Your task to perform on an android device: When is my next appointment? Image 0: 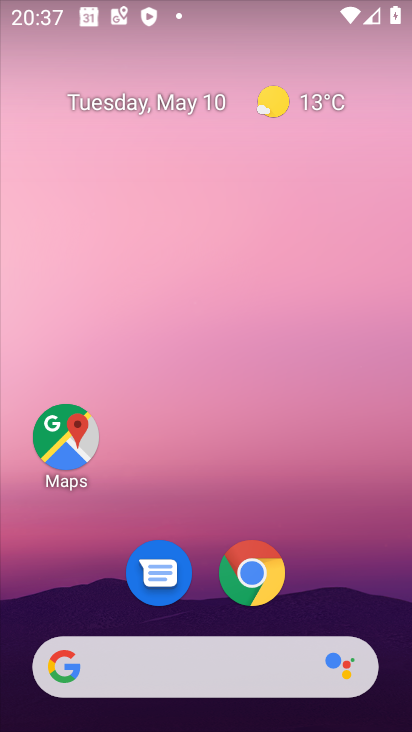
Step 0: drag from (322, 603) to (389, 28)
Your task to perform on an android device: When is my next appointment? Image 1: 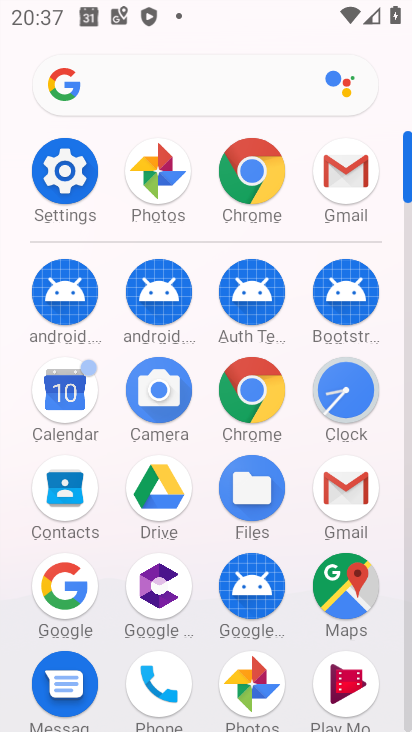
Step 1: click (67, 392)
Your task to perform on an android device: When is my next appointment? Image 2: 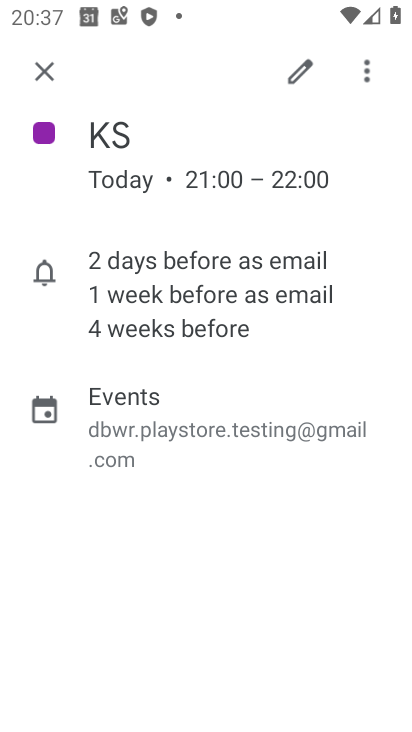
Step 2: click (44, 76)
Your task to perform on an android device: When is my next appointment? Image 3: 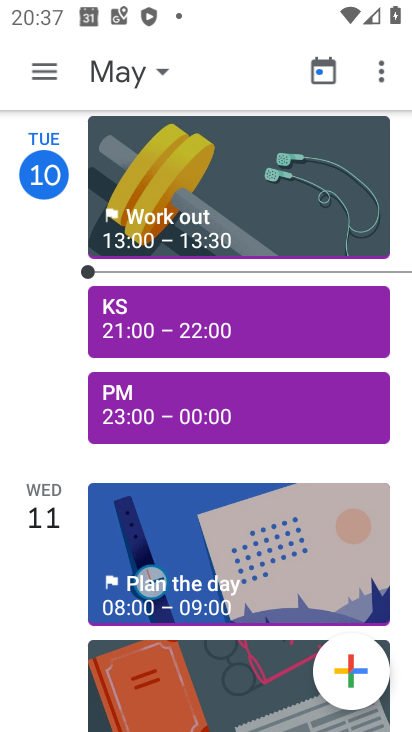
Step 3: click (191, 326)
Your task to perform on an android device: When is my next appointment? Image 4: 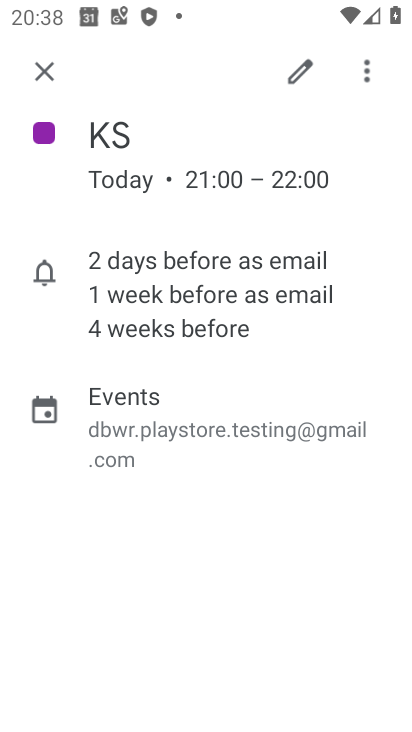
Step 4: task complete